Your task to perform on an android device: Do I have any events tomorrow? Image 0: 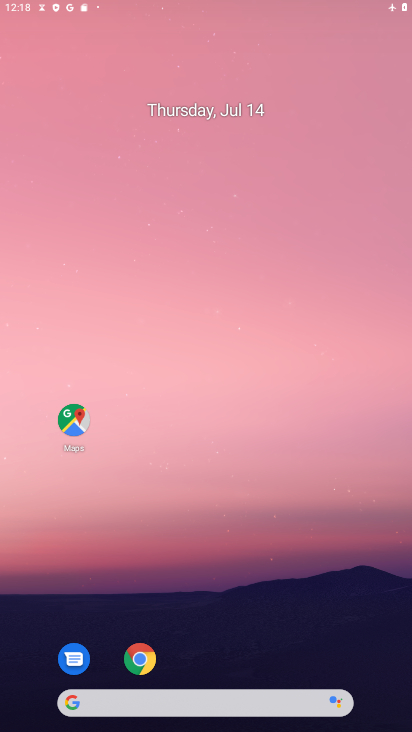
Step 0: drag from (78, 574) to (250, 1)
Your task to perform on an android device: Do I have any events tomorrow? Image 1: 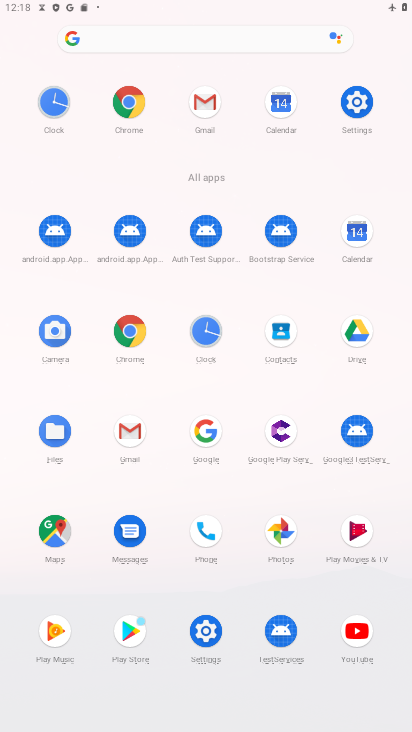
Step 1: click (362, 221)
Your task to perform on an android device: Do I have any events tomorrow? Image 2: 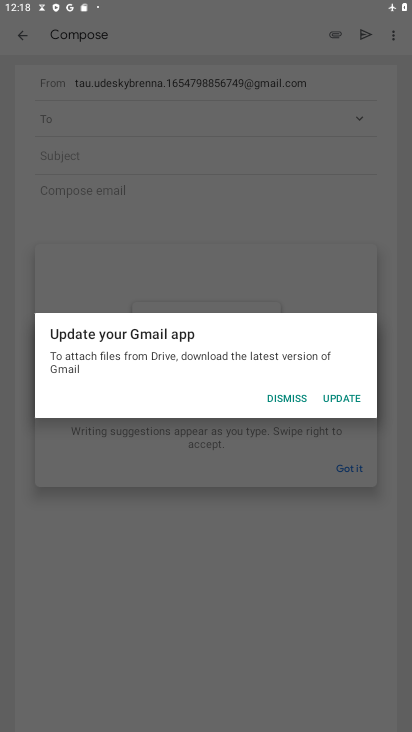
Step 2: click (320, 391)
Your task to perform on an android device: Do I have any events tomorrow? Image 3: 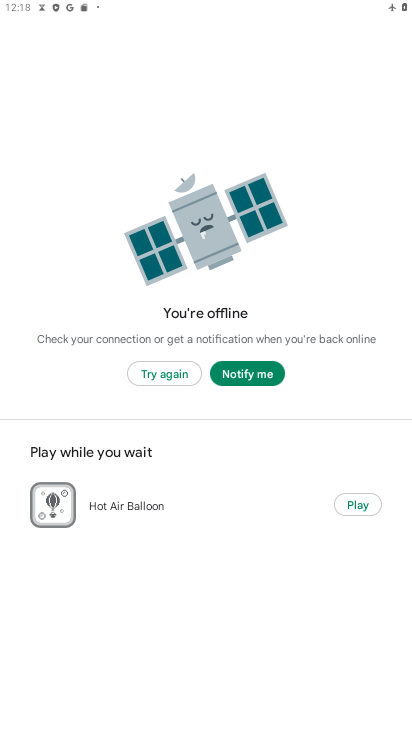
Step 3: task complete